Your task to perform on an android device: find snoozed emails in the gmail app Image 0: 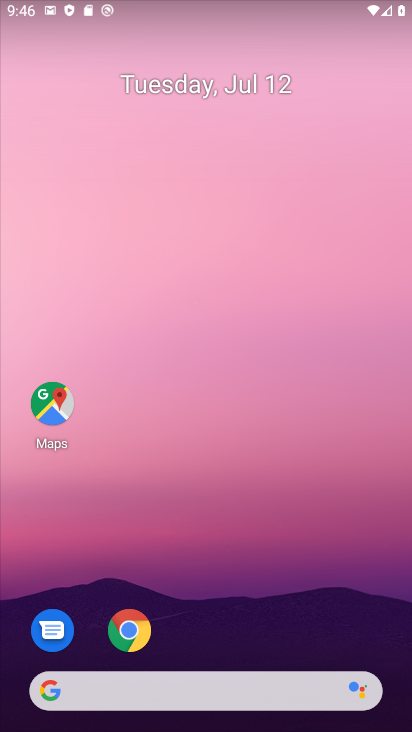
Step 0: drag from (322, 292) to (322, 29)
Your task to perform on an android device: find snoozed emails in the gmail app Image 1: 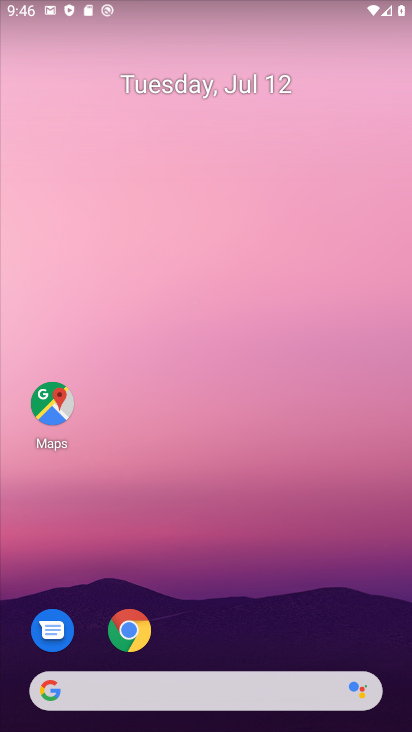
Step 1: drag from (323, 678) to (314, 94)
Your task to perform on an android device: find snoozed emails in the gmail app Image 2: 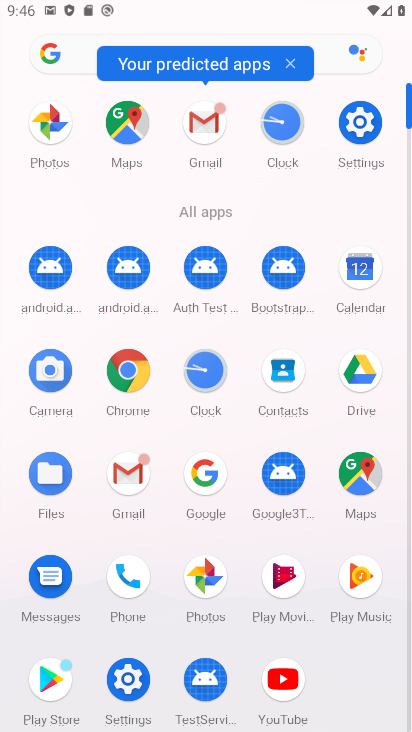
Step 2: click (192, 109)
Your task to perform on an android device: find snoozed emails in the gmail app Image 3: 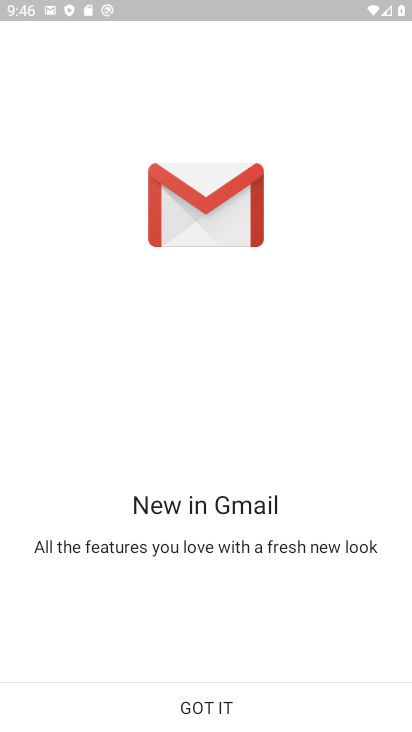
Step 3: click (209, 721)
Your task to perform on an android device: find snoozed emails in the gmail app Image 4: 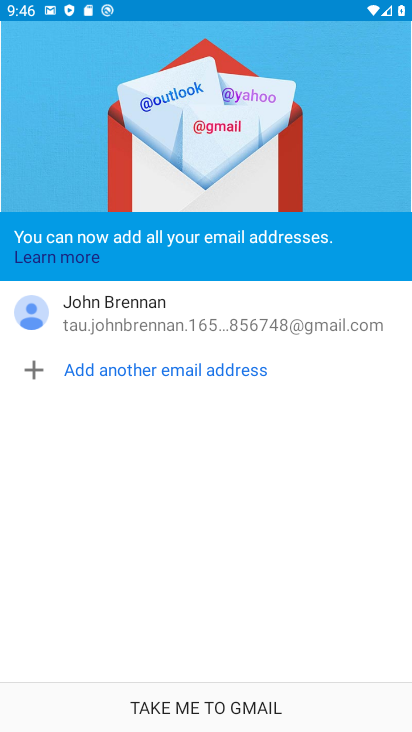
Step 4: click (208, 718)
Your task to perform on an android device: find snoozed emails in the gmail app Image 5: 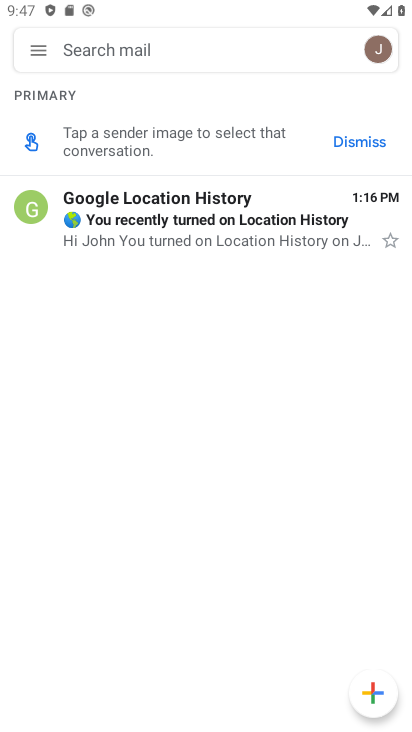
Step 5: click (34, 44)
Your task to perform on an android device: find snoozed emails in the gmail app Image 6: 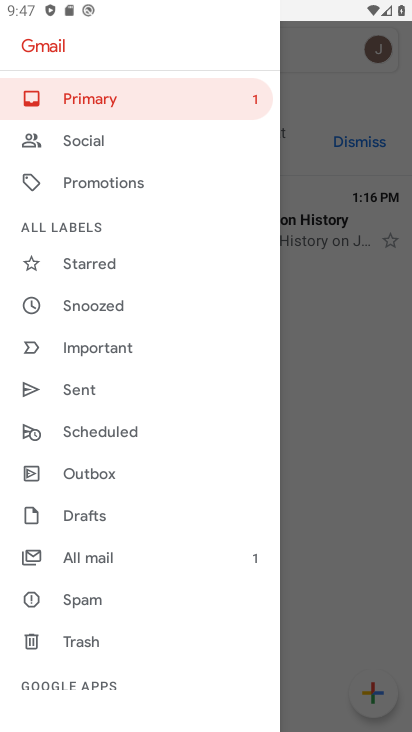
Step 6: click (95, 300)
Your task to perform on an android device: find snoozed emails in the gmail app Image 7: 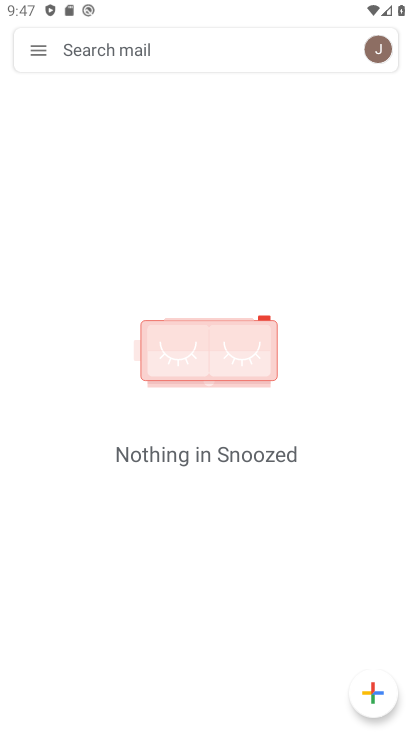
Step 7: task complete